Your task to perform on an android device: Check the weather Image 0: 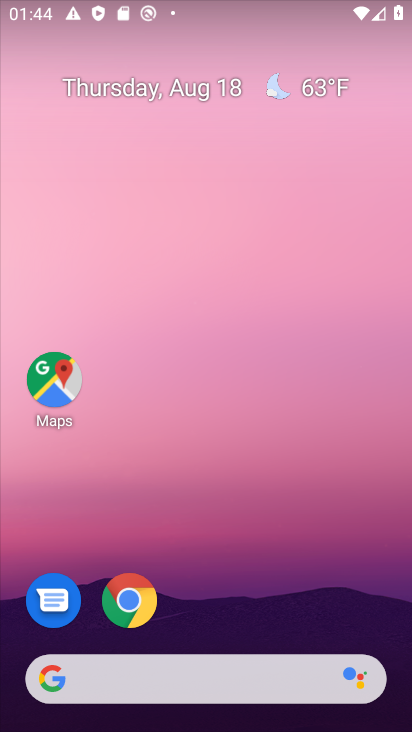
Step 0: click (140, 667)
Your task to perform on an android device: Check the weather Image 1: 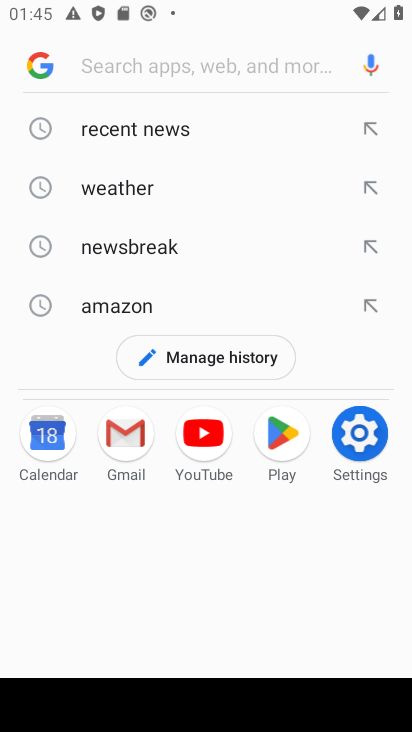
Step 1: click (95, 180)
Your task to perform on an android device: Check the weather Image 2: 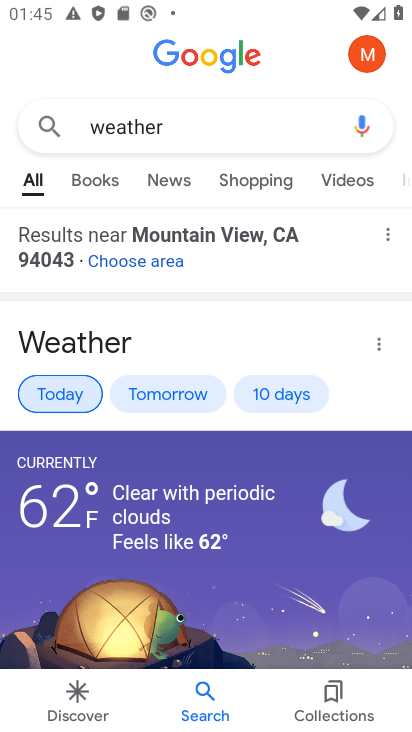
Step 2: task complete